Your task to perform on an android device: toggle notification dots Image 0: 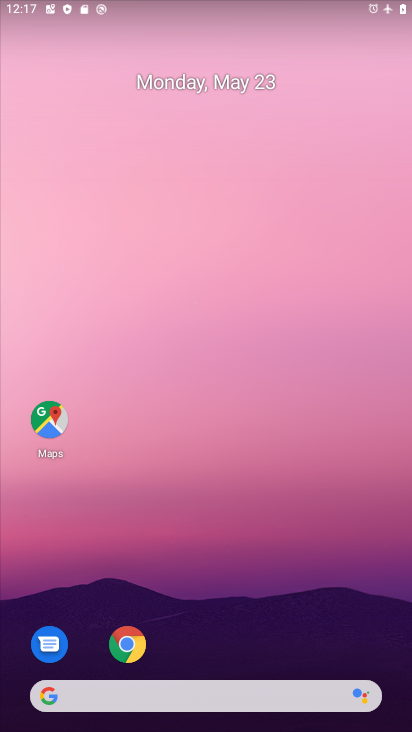
Step 0: drag from (342, 622) to (285, 103)
Your task to perform on an android device: toggle notification dots Image 1: 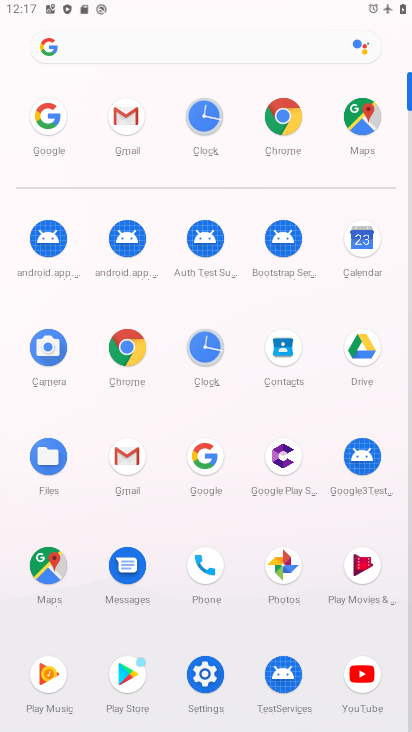
Step 1: click (206, 670)
Your task to perform on an android device: toggle notification dots Image 2: 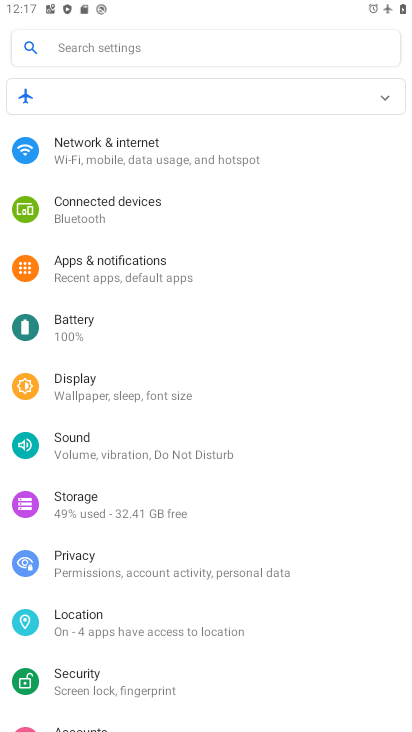
Step 2: click (166, 280)
Your task to perform on an android device: toggle notification dots Image 3: 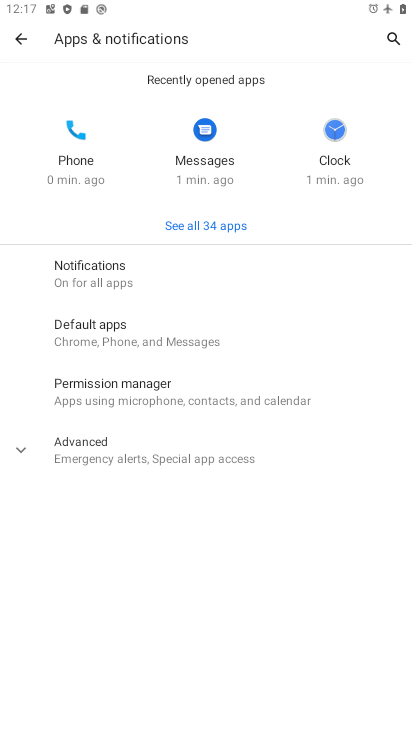
Step 3: click (166, 280)
Your task to perform on an android device: toggle notification dots Image 4: 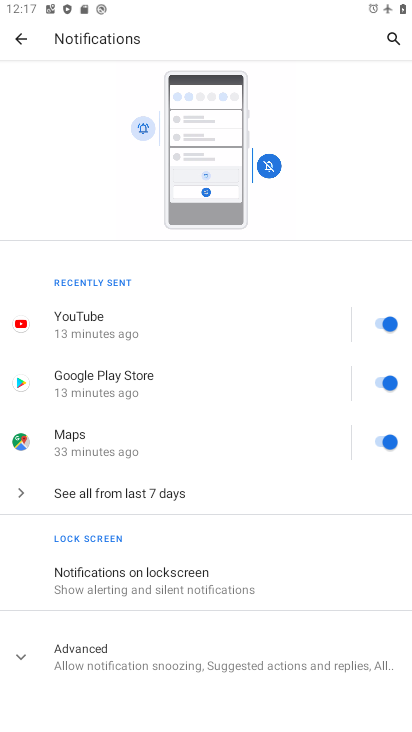
Step 4: click (184, 652)
Your task to perform on an android device: toggle notification dots Image 5: 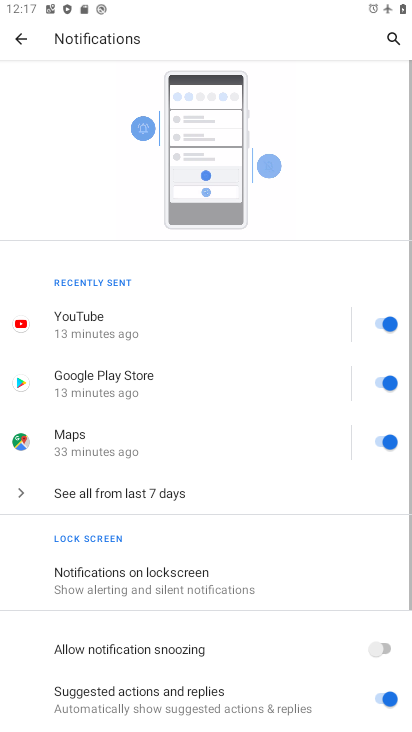
Step 5: drag from (170, 665) to (262, 186)
Your task to perform on an android device: toggle notification dots Image 6: 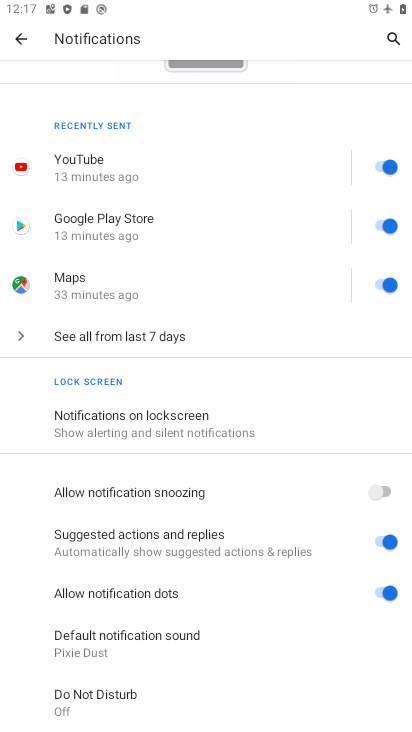
Step 6: click (234, 592)
Your task to perform on an android device: toggle notification dots Image 7: 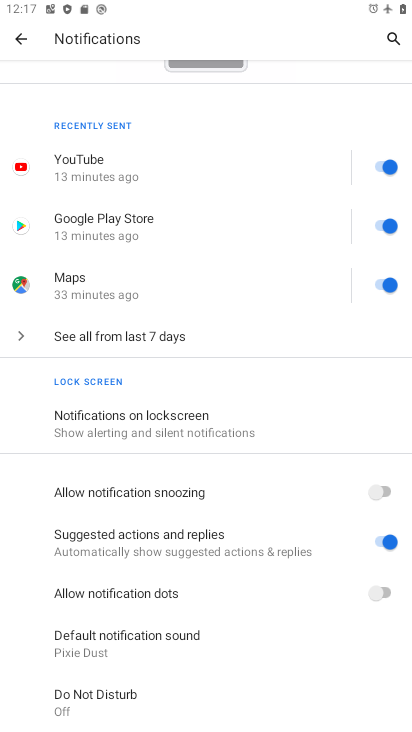
Step 7: task complete